Your task to perform on an android device: Go to privacy settings Image 0: 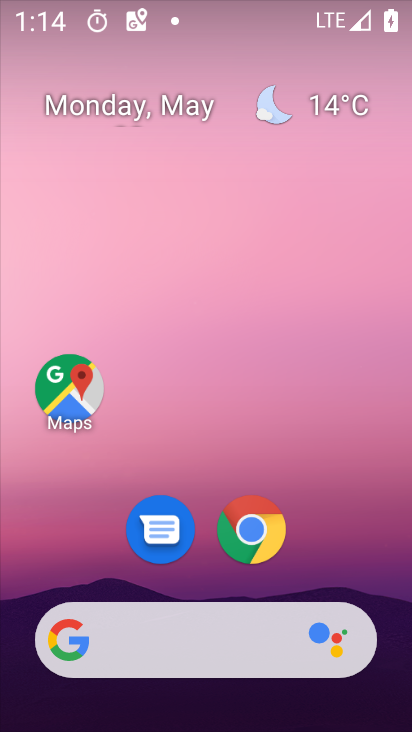
Step 0: drag from (389, 587) to (370, 288)
Your task to perform on an android device: Go to privacy settings Image 1: 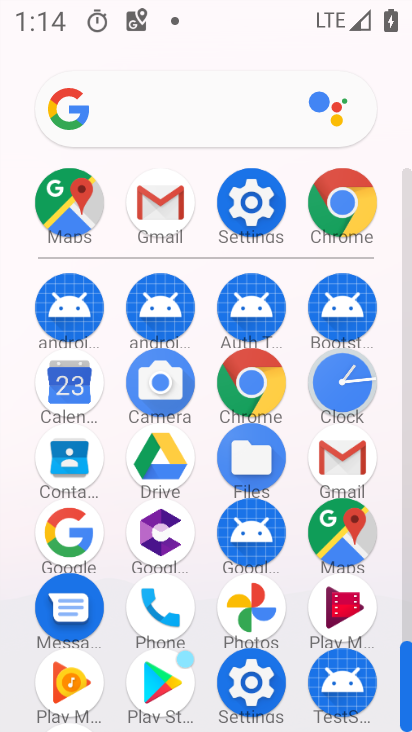
Step 1: click (251, 219)
Your task to perform on an android device: Go to privacy settings Image 2: 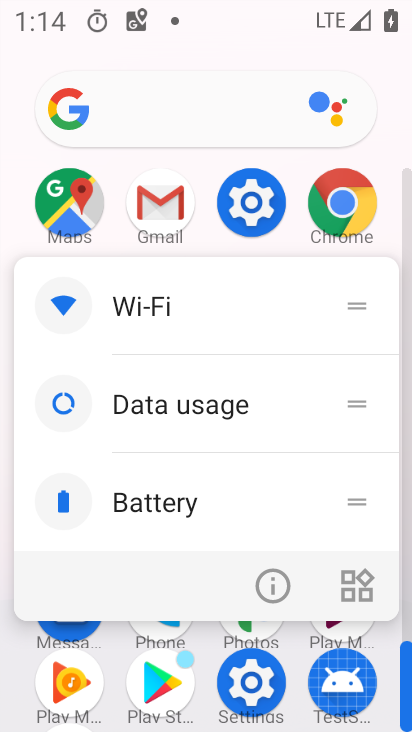
Step 2: click (239, 202)
Your task to perform on an android device: Go to privacy settings Image 3: 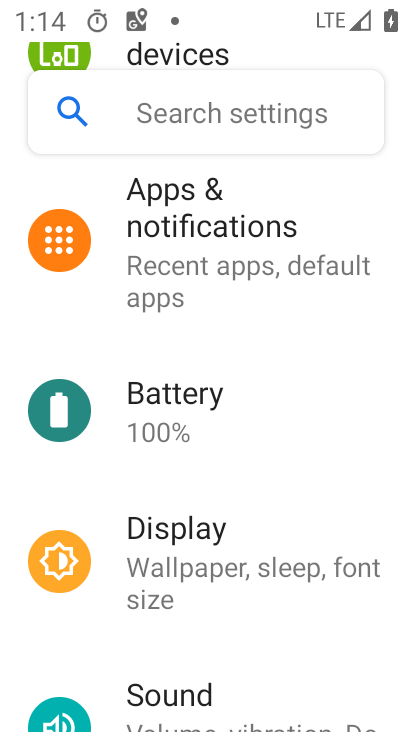
Step 3: drag from (382, 222) to (384, 314)
Your task to perform on an android device: Go to privacy settings Image 4: 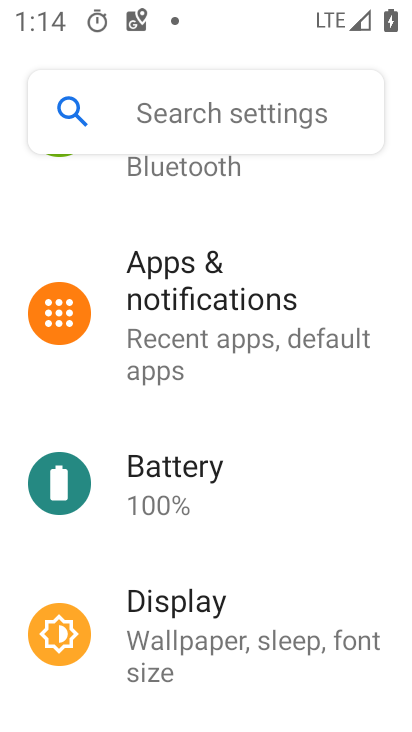
Step 4: drag from (379, 212) to (383, 318)
Your task to perform on an android device: Go to privacy settings Image 5: 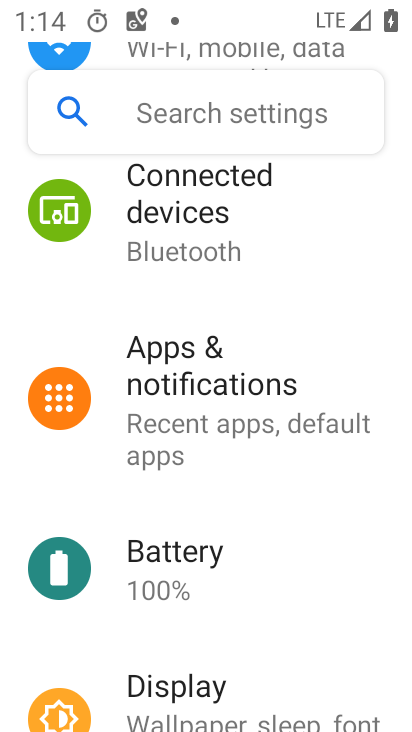
Step 5: drag from (376, 187) to (379, 290)
Your task to perform on an android device: Go to privacy settings Image 6: 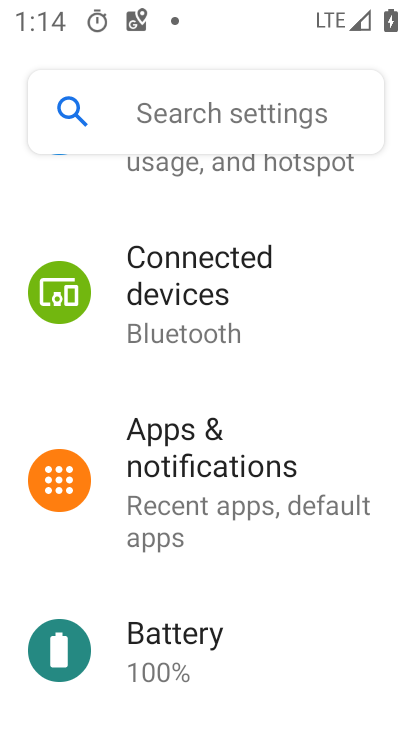
Step 6: drag from (366, 203) to (363, 317)
Your task to perform on an android device: Go to privacy settings Image 7: 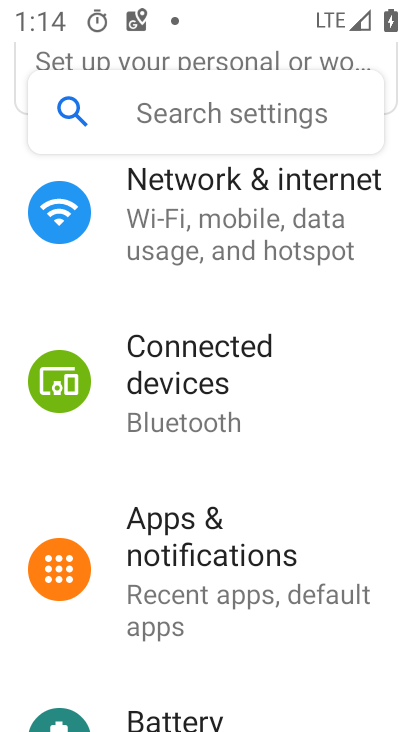
Step 7: drag from (372, 207) to (373, 349)
Your task to perform on an android device: Go to privacy settings Image 8: 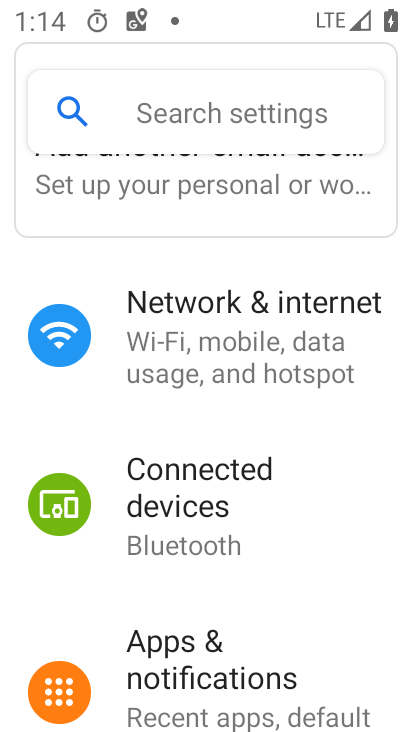
Step 8: drag from (376, 369) to (382, 260)
Your task to perform on an android device: Go to privacy settings Image 9: 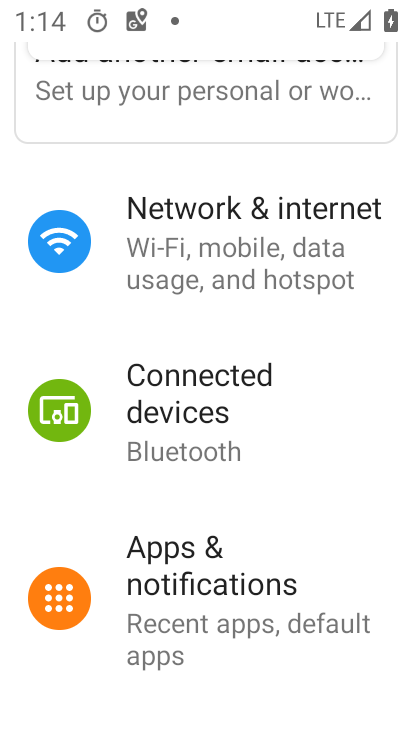
Step 9: drag from (380, 351) to (384, 242)
Your task to perform on an android device: Go to privacy settings Image 10: 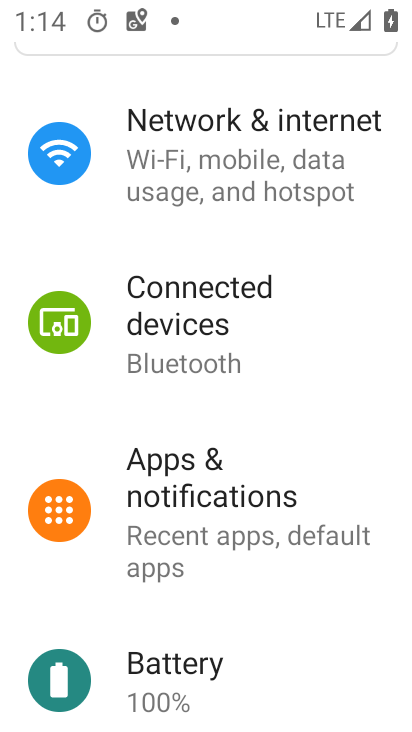
Step 10: drag from (366, 343) to (355, 233)
Your task to perform on an android device: Go to privacy settings Image 11: 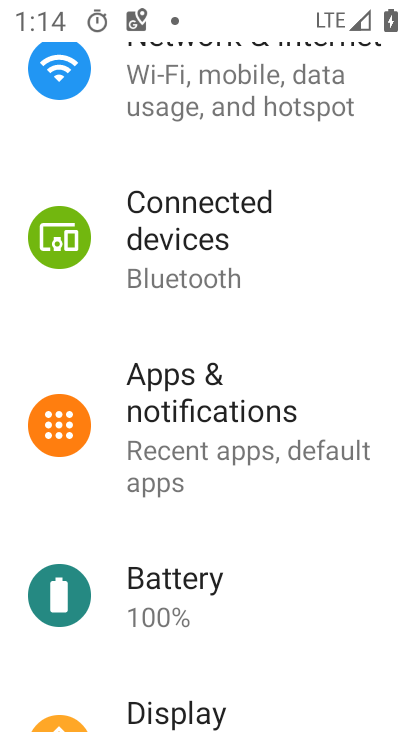
Step 11: drag from (354, 348) to (346, 251)
Your task to perform on an android device: Go to privacy settings Image 12: 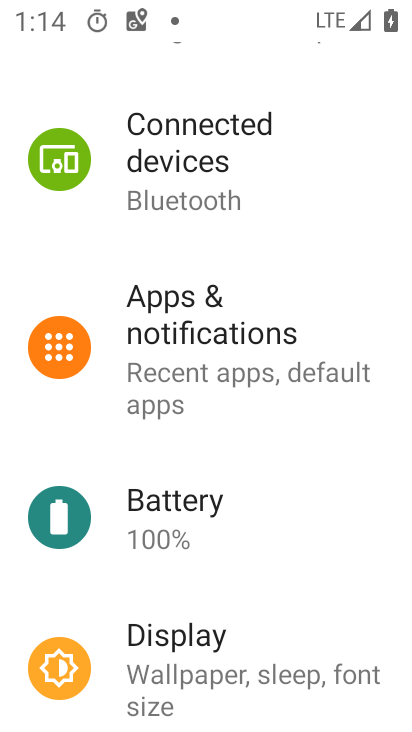
Step 12: drag from (346, 310) to (346, 244)
Your task to perform on an android device: Go to privacy settings Image 13: 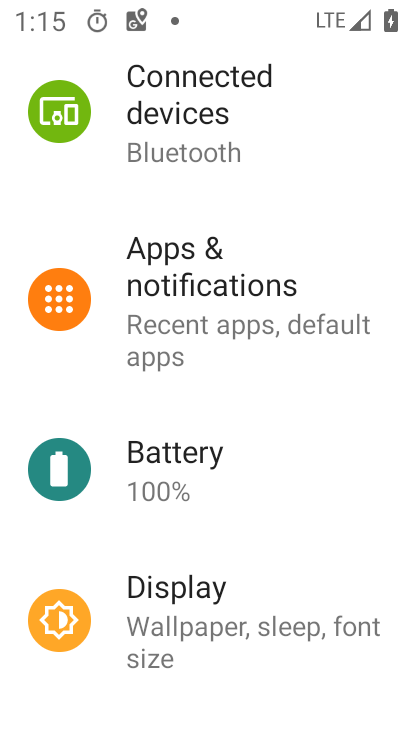
Step 13: drag from (342, 413) to (348, 265)
Your task to perform on an android device: Go to privacy settings Image 14: 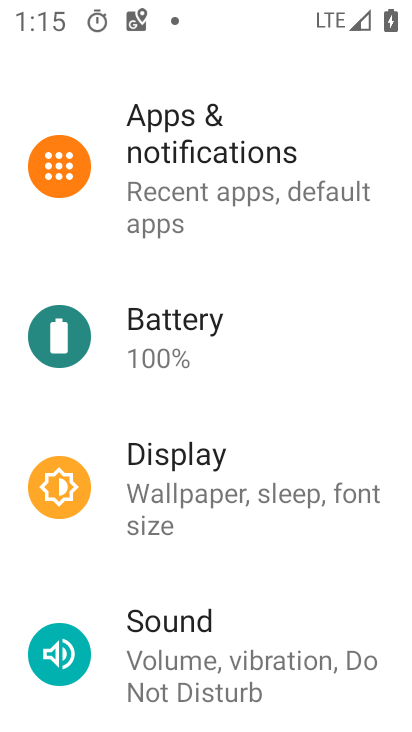
Step 14: drag from (329, 423) to (331, 307)
Your task to perform on an android device: Go to privacy settings Image 15: 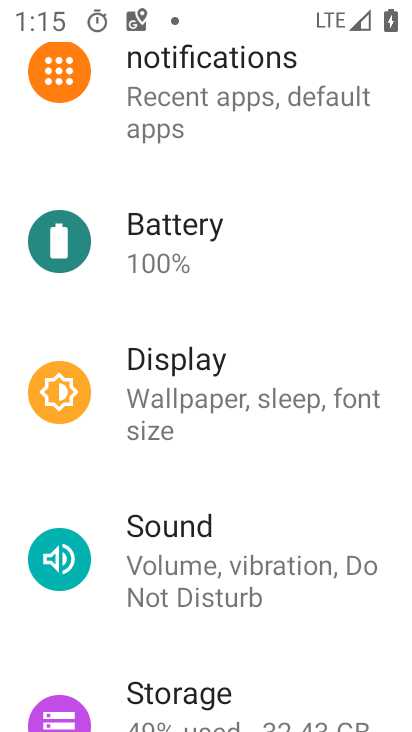
Step 15: drag from (312, 454) to (309, 351)
Your task to perform on an android device: Go to privacy settings Image 16: 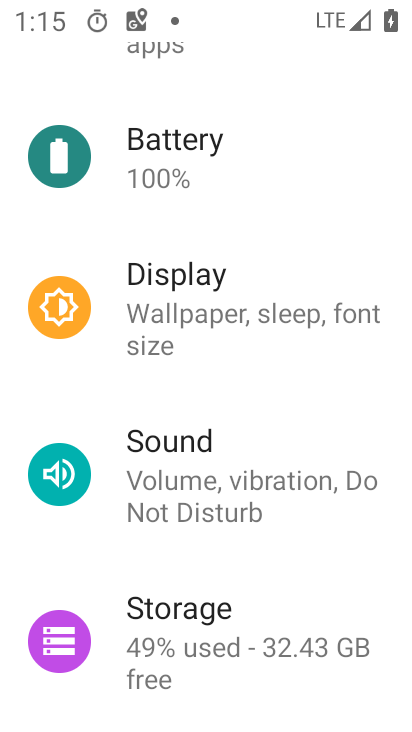
Step 16: drag from (308, 506) to (307, 378)
Your task to perform on an android device: Go to privacy settings Image 17: 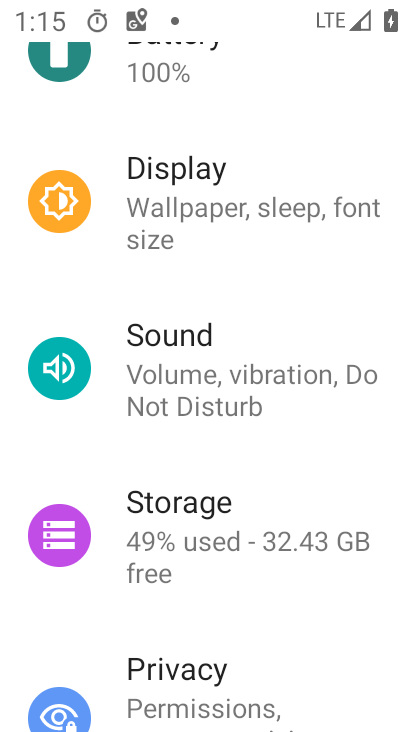
Step 17: drag from (291, 535) to (294, 422)
Your task to perform on an android device: Go to privacy settings Image 18: 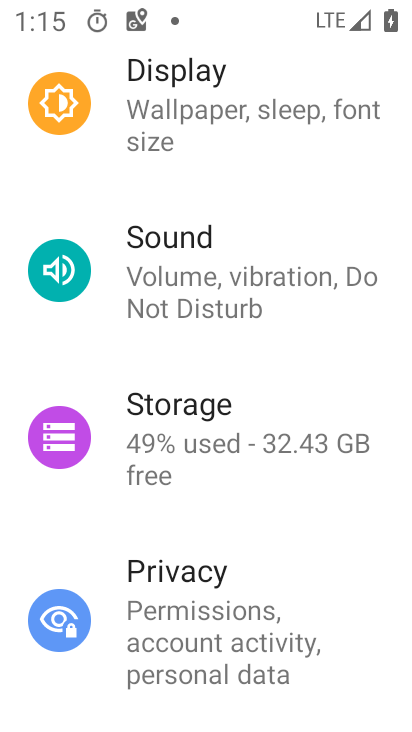
Step 18: drag from (305, 574) to (305, 479)
Your task to perform on an android device: Go to privacy settings Image 19: 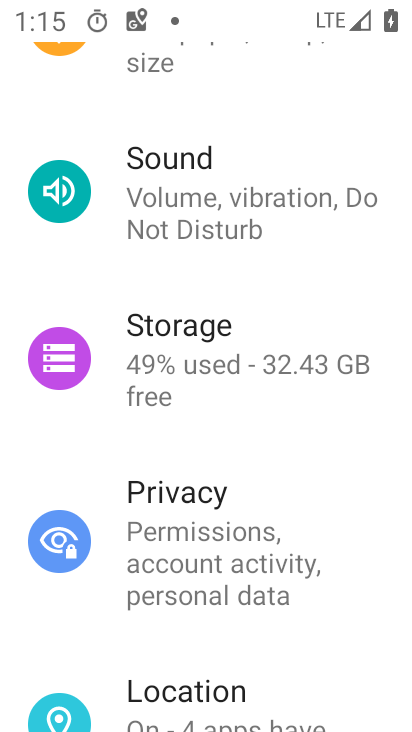
Step 19: drag from (318, 581) to (327, 480)
Your task to perform on an android device: Go to privacy settings Image 20: 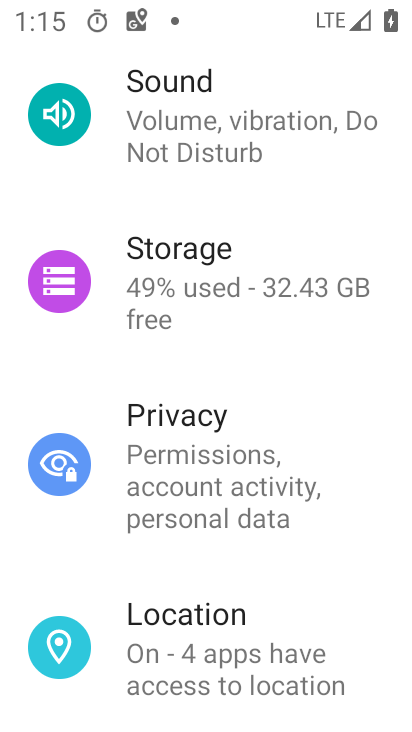
Step 20: click (283, 487)
Your task to perform on an android device: Go to privacy settings Image 21: 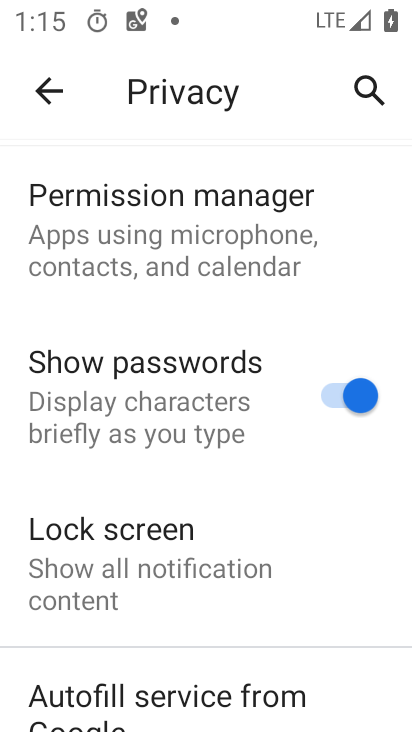
Step 21: task complete